Your task to perform on an android device: Open Google Chrome and click the shortcut for Amazon.com Image 0: 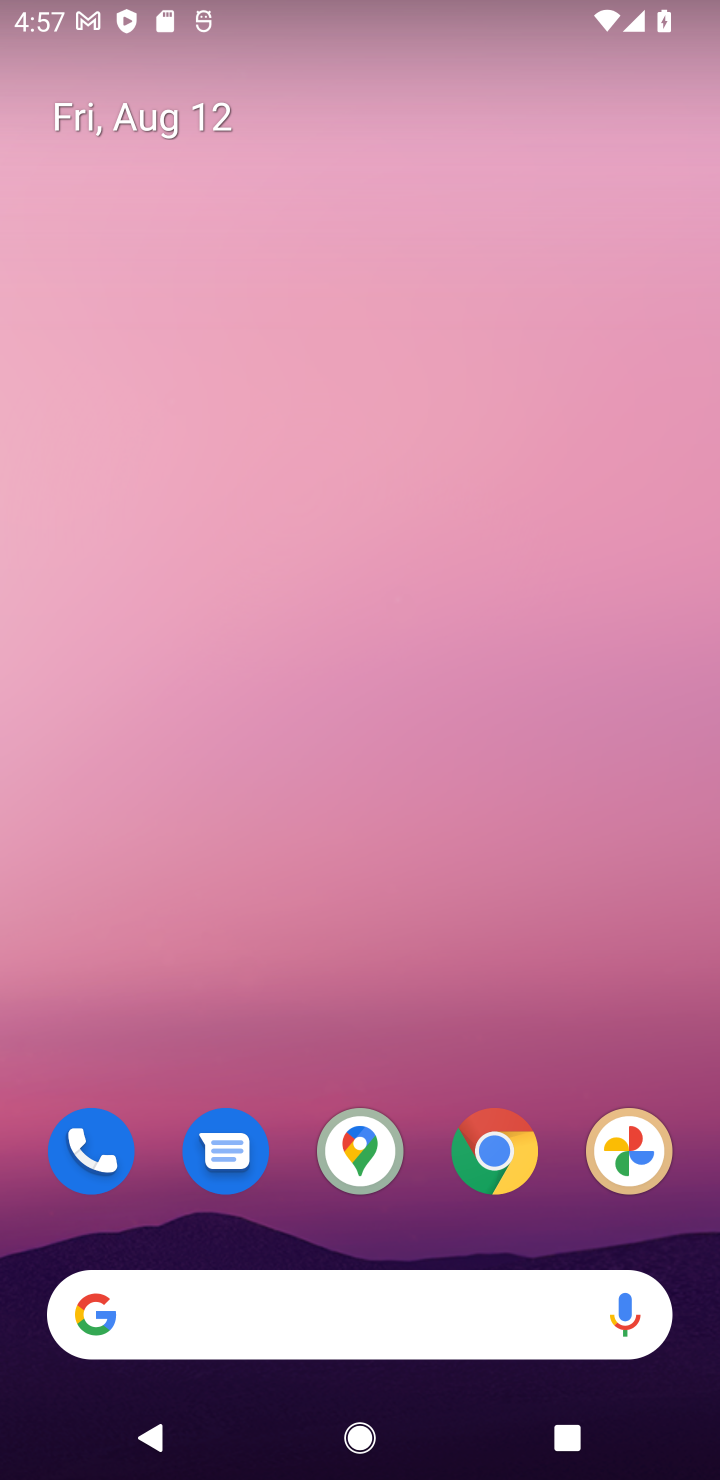
Step 0: drag from (378, 1003) to (356, 122)
Your task to perform on an android device: Open Google Chrome and click the shortcut for Amazon.com Image 1: 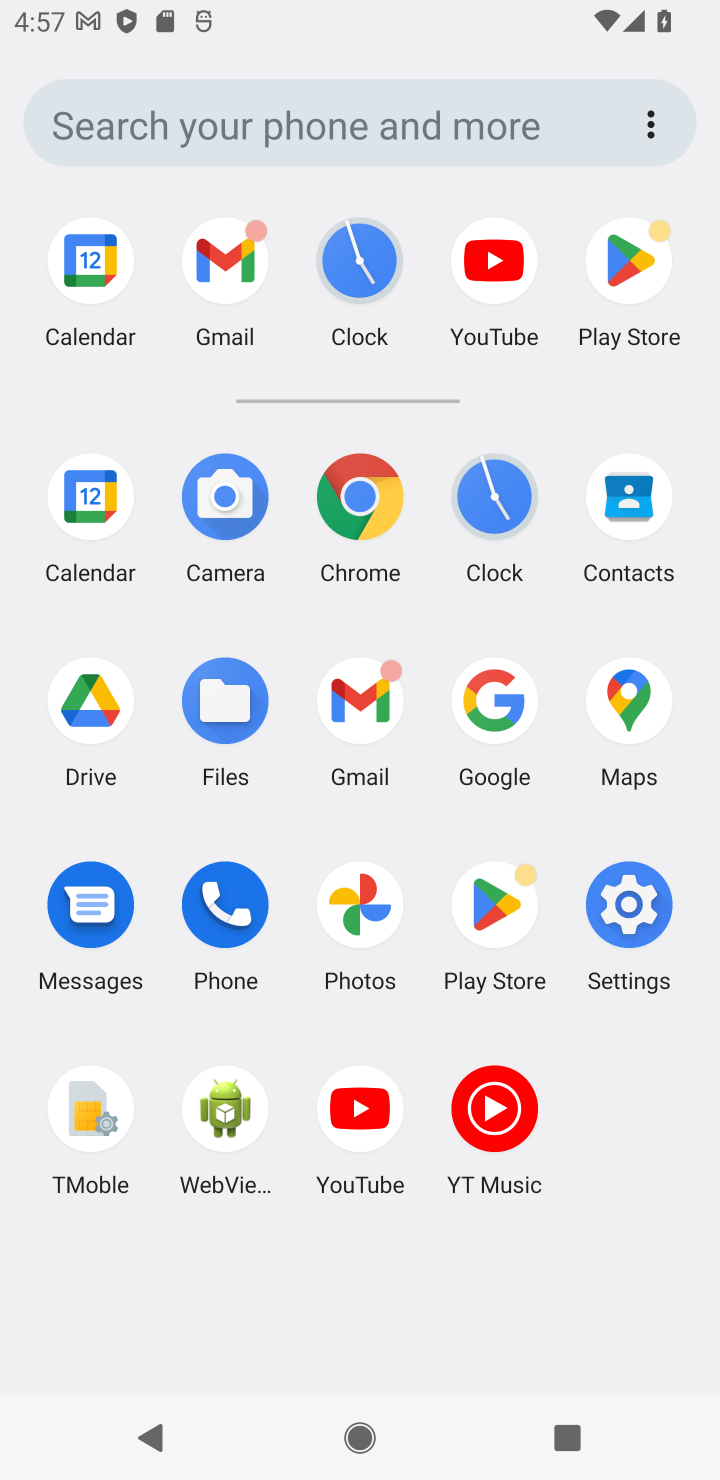
Step 1: click (370, 499)
Your task to perform on an android device: Open Google Chrome and click the shortcut for Amazon.com Image 2: 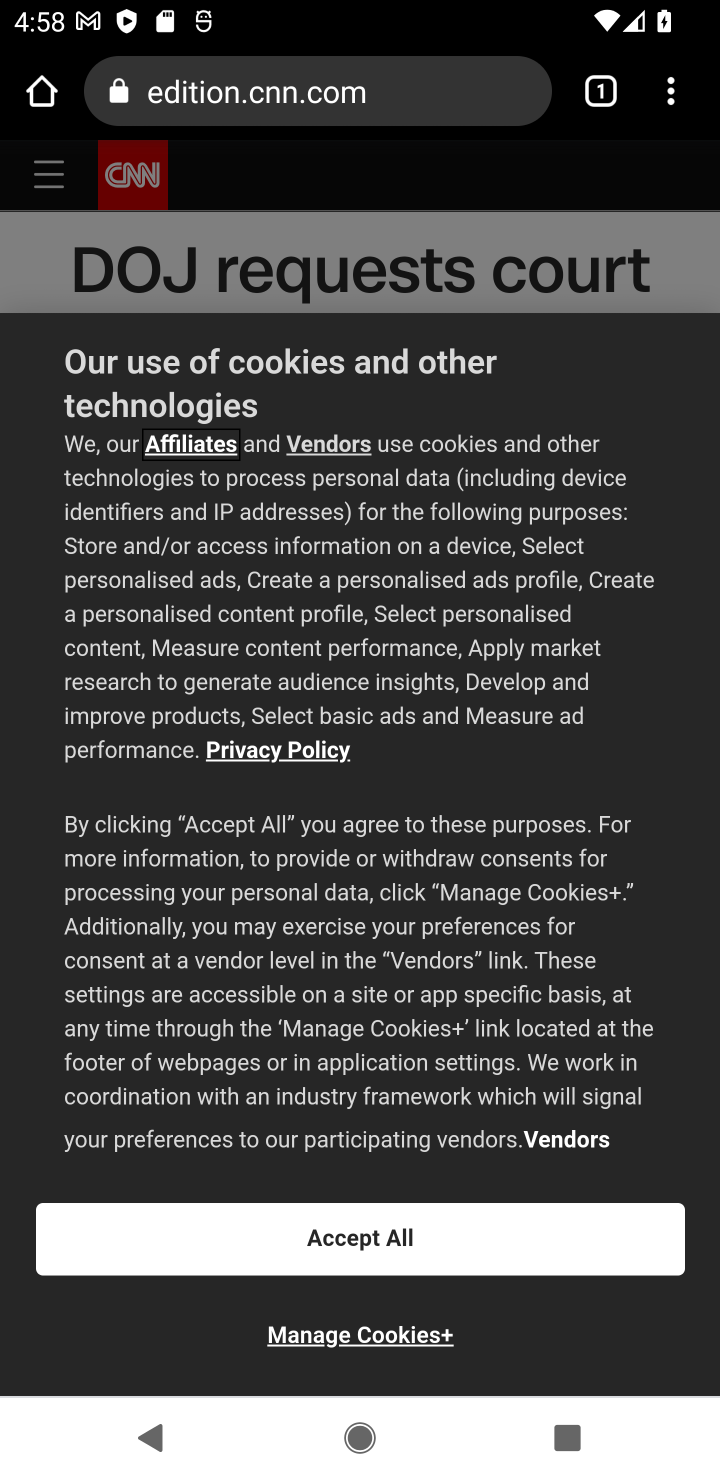
Step 2: drag from (666, 85) to (422, 289)
Your task to perform on an android device: Open Google Chrome and click the shortcut for Amazon.com Image 3: 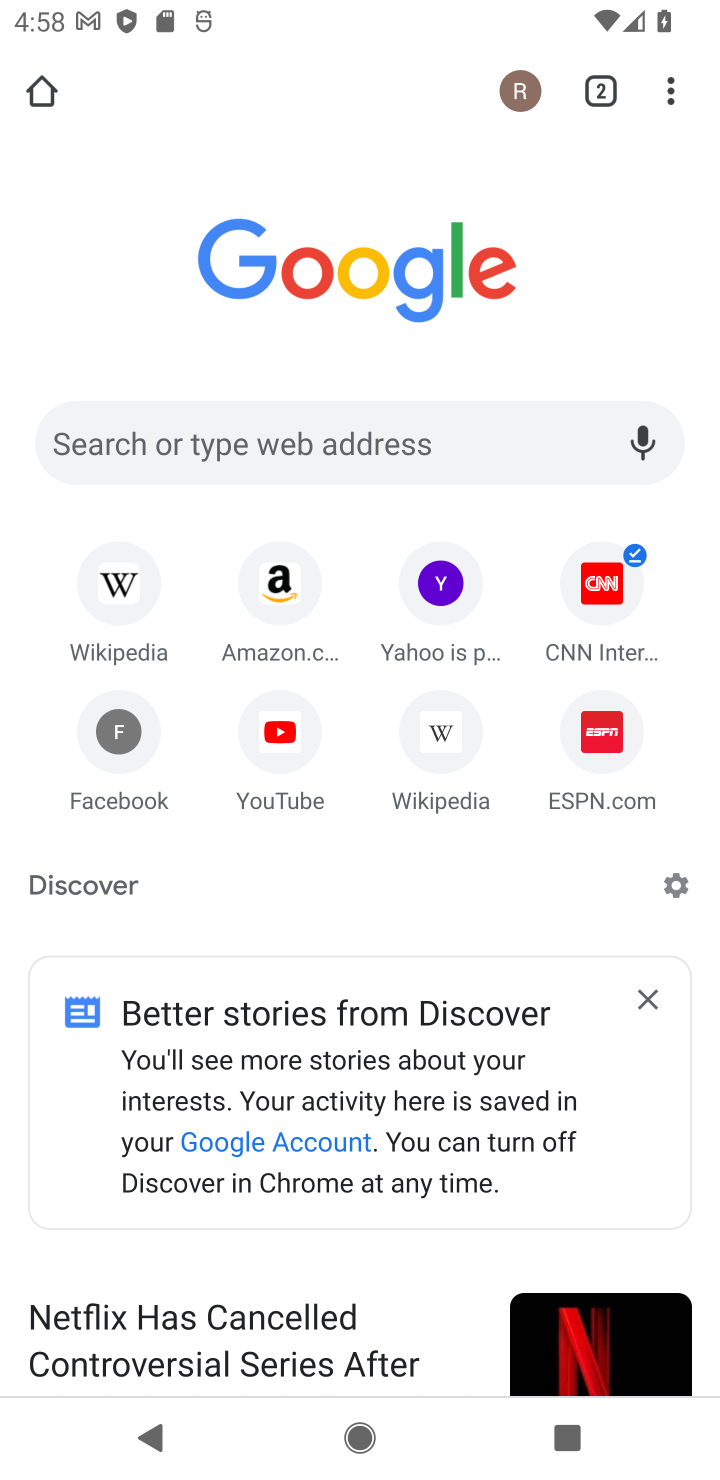
Step 3: click (279, 558)
Your task to perform on an android device: Open Google Chrome and click the shortcut for Amazon.com Image 4: 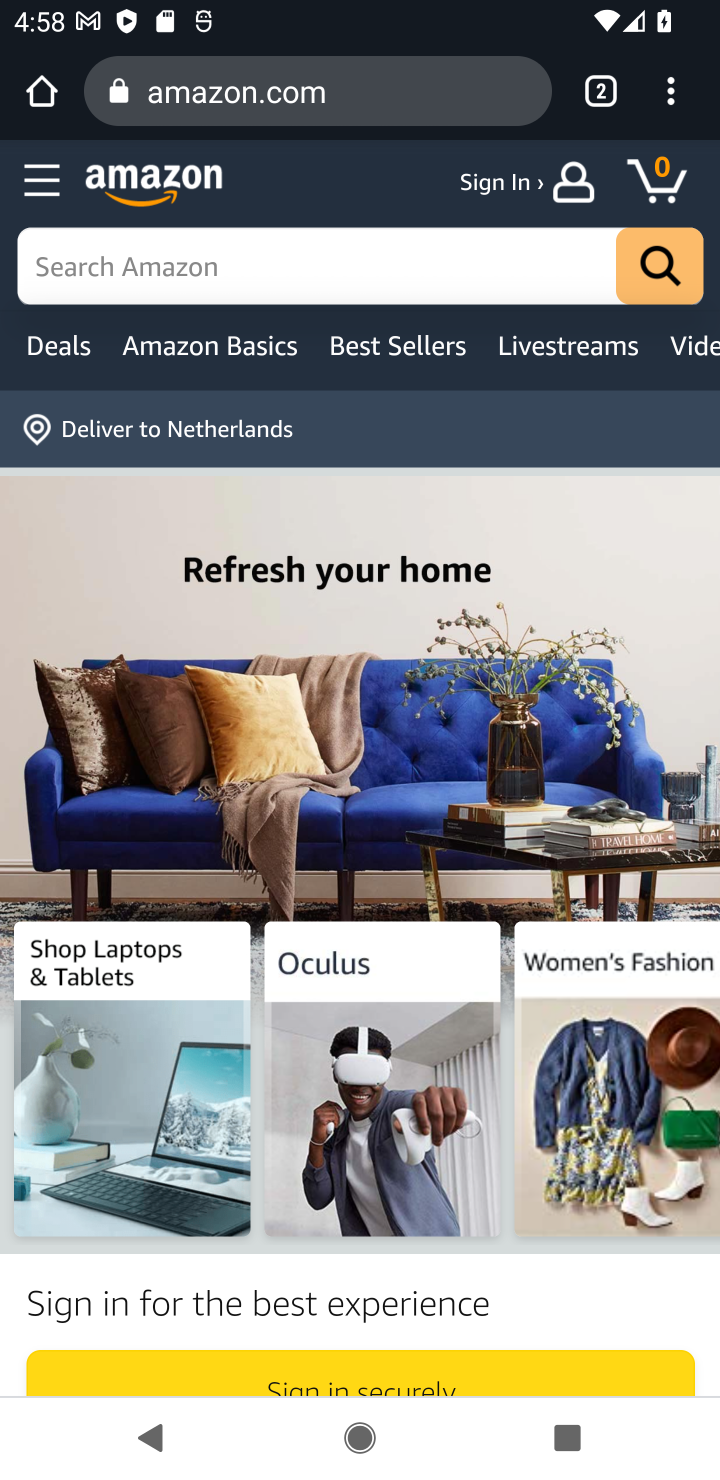
Step 4: task complete